Your task to perform on an android device: Search for Mexican restaurants on Maps Image 0: 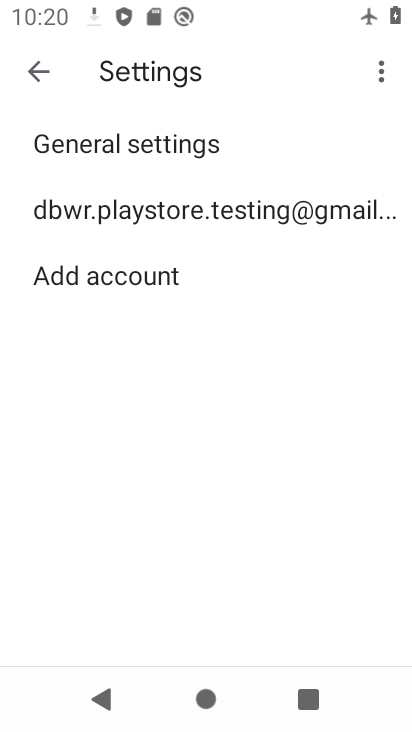
Step 0: press back button
Your task to perform on an android device: Search for Mexican restaurants on Maps Image 1: 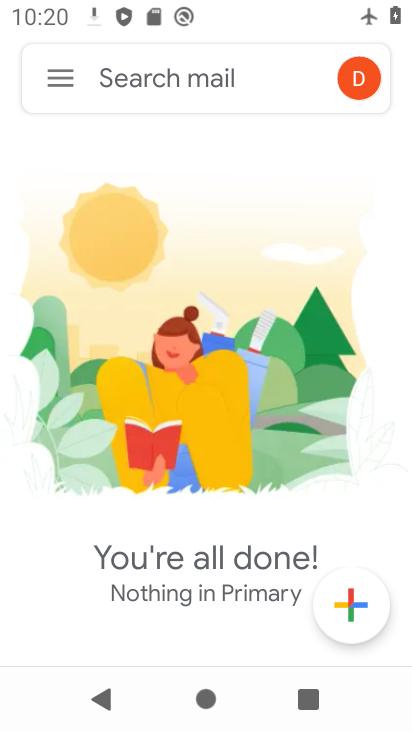
Step 1: press back button
Your task to perform on an android device: Search for Mexican restaurants on Maps Image 2: 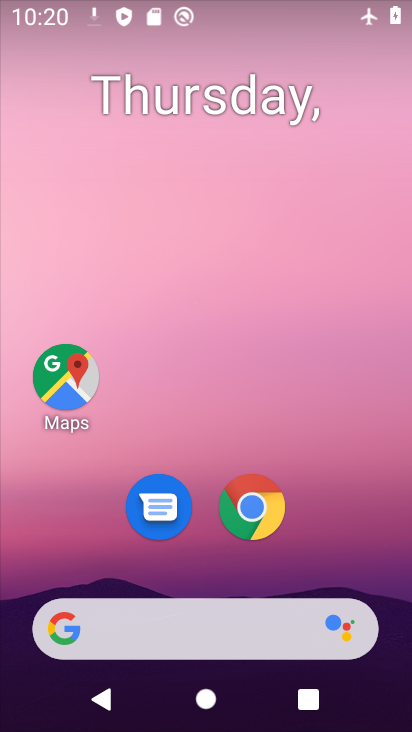
Step 2: drag from (366, 518) to (335, 5)
Your task to perform on an android device: Search for Mexican restaurants on Maps Image 3: 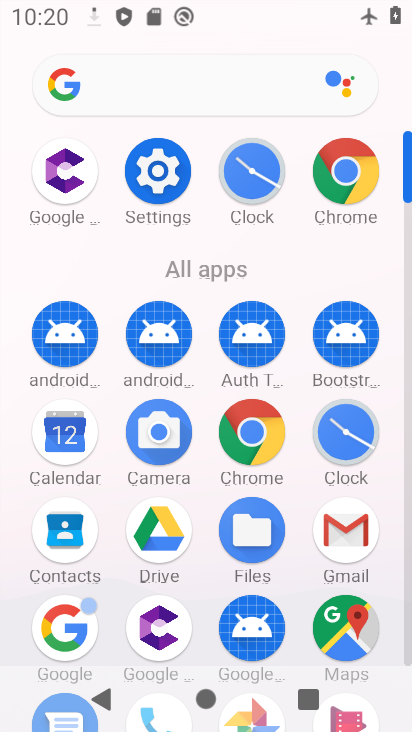
Step 3: click (345, 625)
Your task to perform on an android device: Search for Mexican restaurants on Maps Image 4: 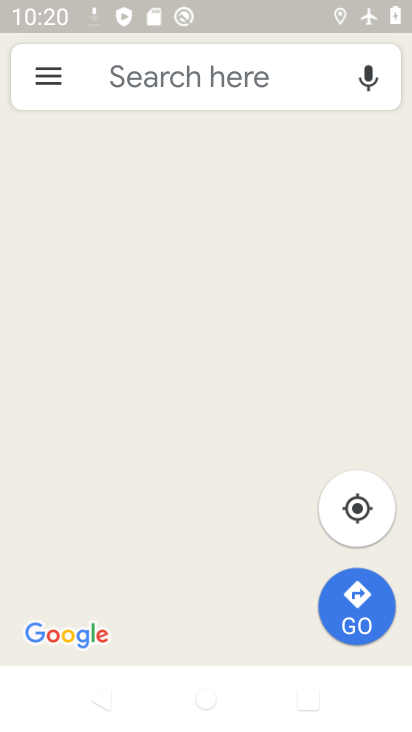
Step 4: click (276, 67)
Your task to perform on an android device: Search for Mexican restaurants on Maps Image 5: 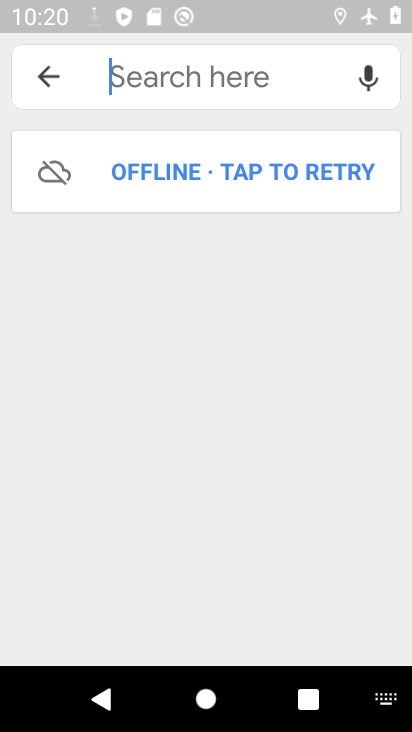
Step 5: type "Mexican restaurants"
Your task to perform on an android device: Search for Mexican restaurants on Maps Image 6: 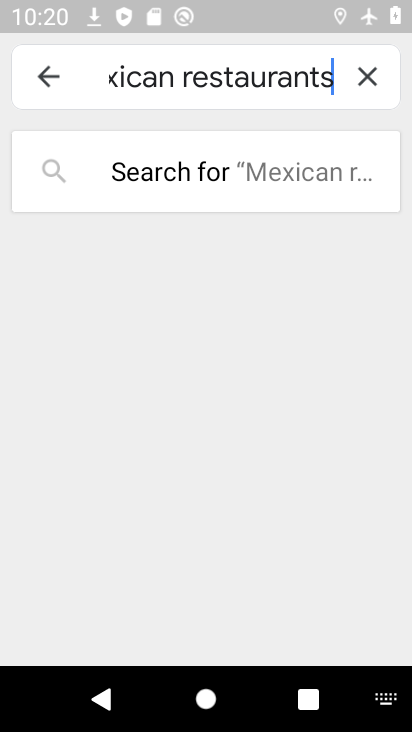
Step 6: type ""
Your task to perform on an android device: Search for Mexican restaurants on Maps Image 7: 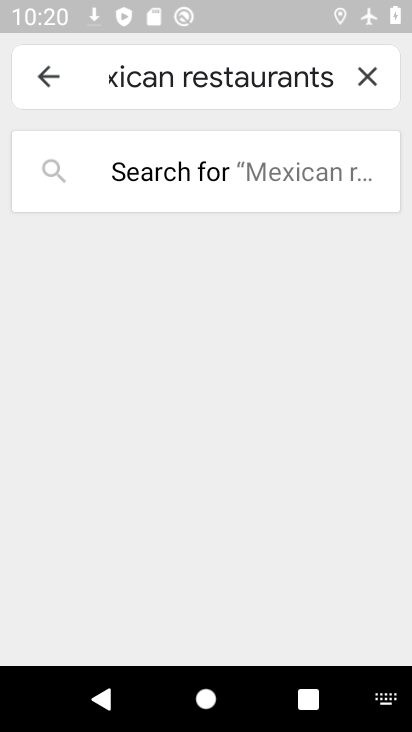
Step 7: click (214, 179)
Your task to perform on an android device: Search for Mexican restaurants on Maps Image 8: 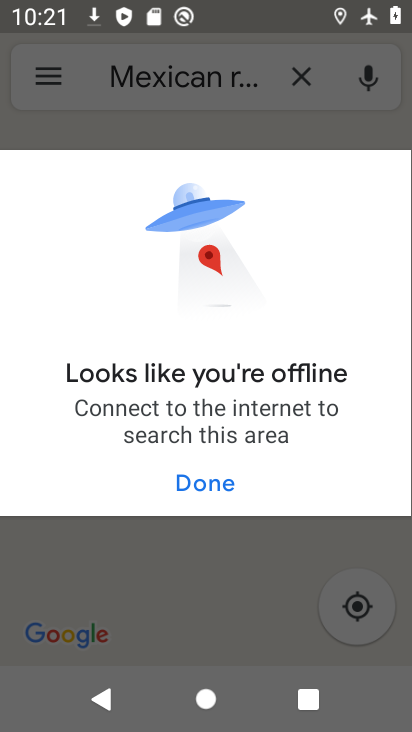
Step 8: task complete